Your task to perform on an android device: turn on sleep mode Image 0: 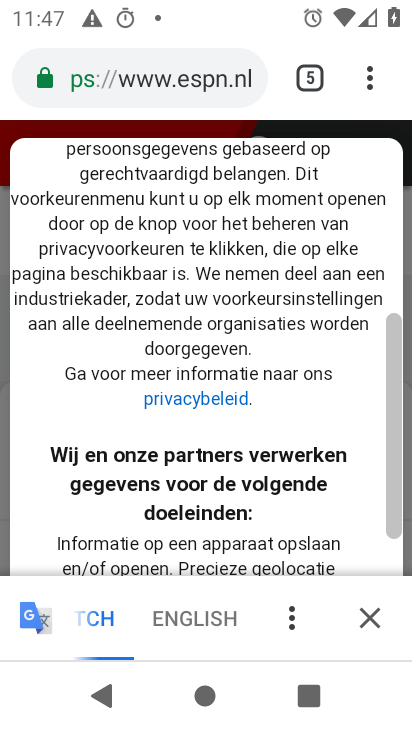
Step 0: press back button
Your task to perform on an android device: turn on sleep mode Image 1: 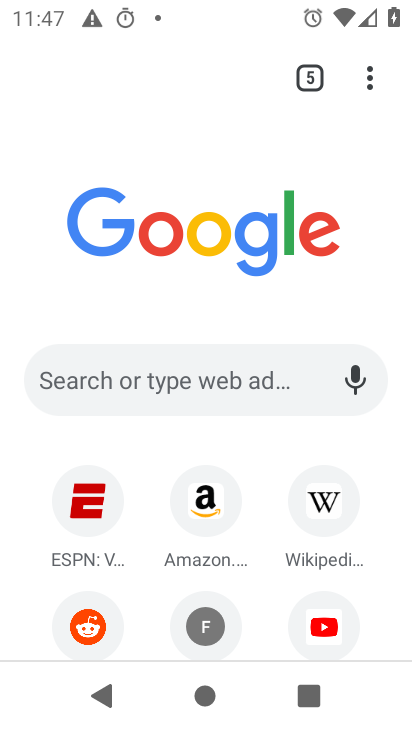
Step 1: press back button
Your task to perform on an android device: turn on sleep mode Image 2: 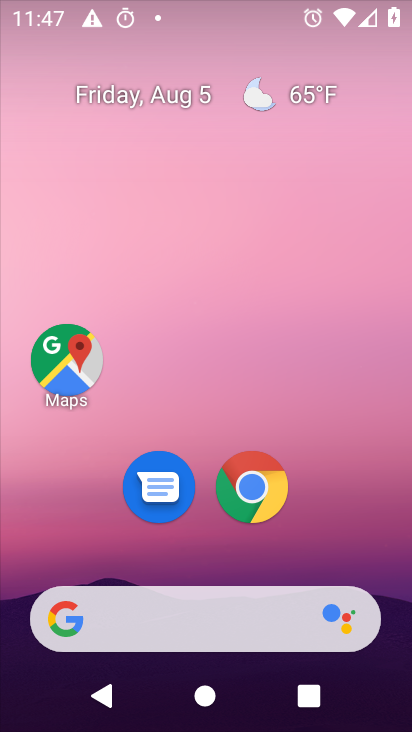
Step 2: drag from (194, 560) to (202, 54)
Your task to perform on an android device: turn on sleep mode Image 3: 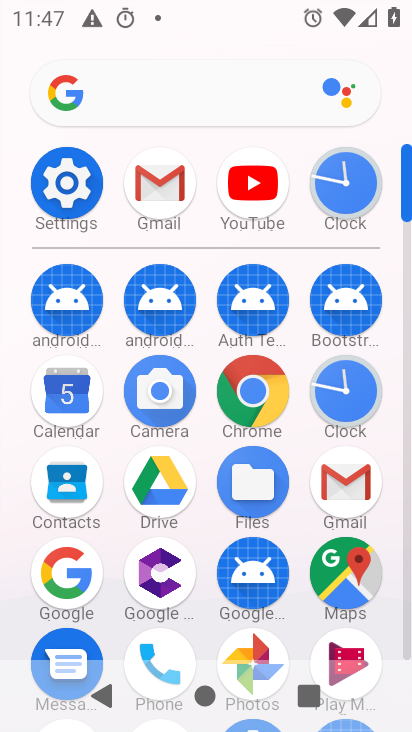
Step 3: click (68, 181)
Your task to perform on an android device: turn on sleep mode Image 4: 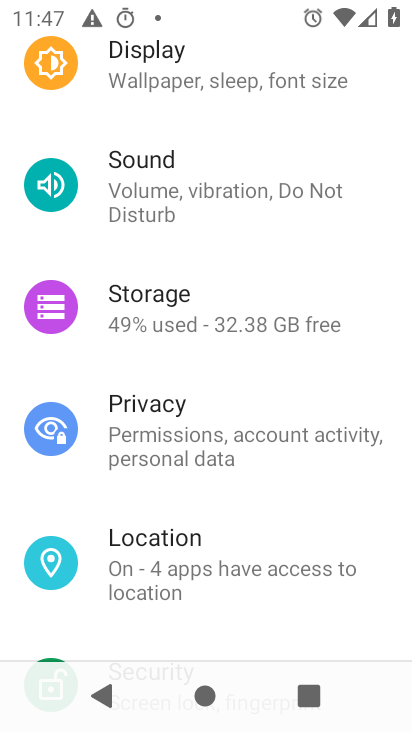
Step 4: drag from (254, 228) to (212, 729)
Your task to perform on an android device: turn on sleep mode Image 5: 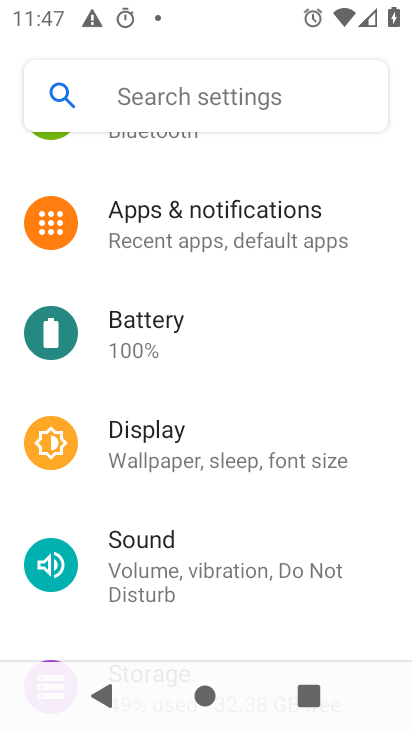
Step 5: click (191, 92)
Your task to perform on an android device: turn on sleep mode Image 6: 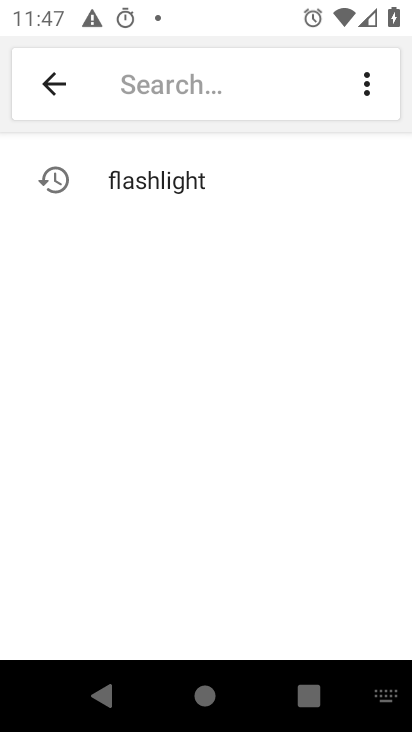
Step 6: type "sleep mode"
Your task to perform on an android device: turn on sleep mode Image 7: 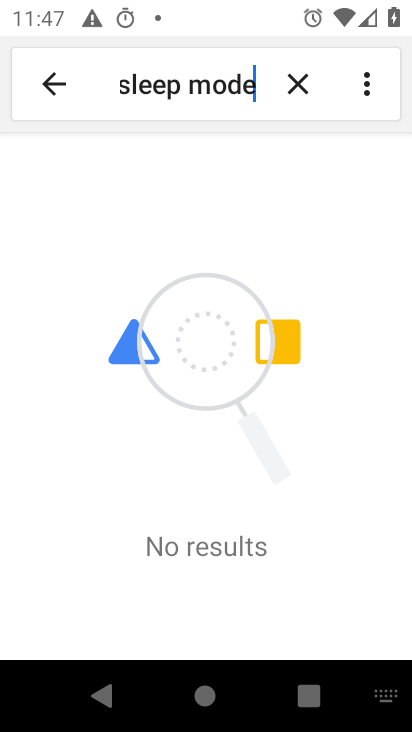
Step 7: task complete